Your task to perform on an android device: see tabs open on other devices in the chrome app Image 0: 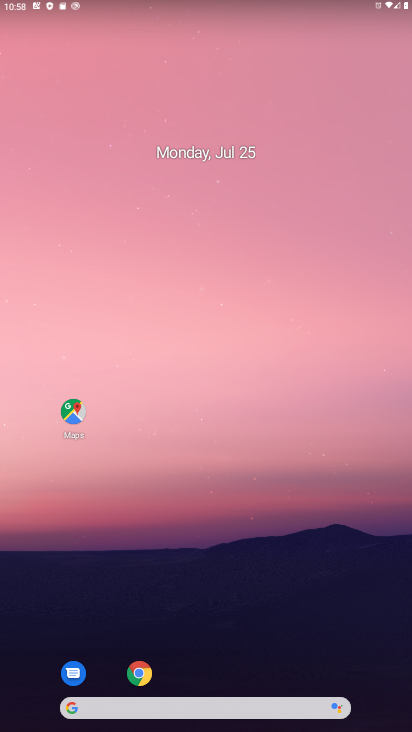
Step 0: click (139, 667)
Your task to perform on an android device: see tabs open on other devices in the chrome app Image 1: 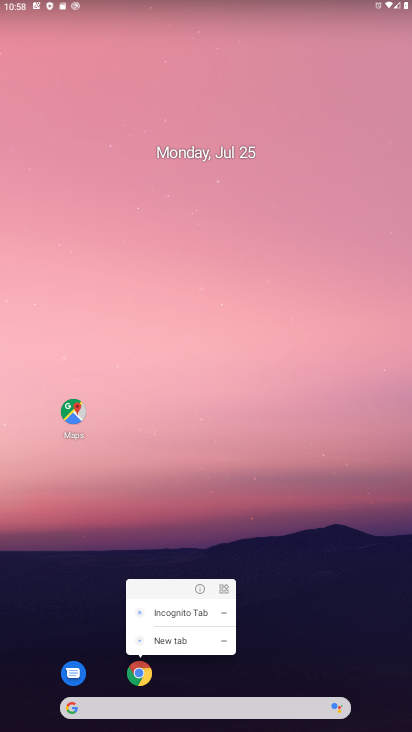
Step 1: click (278, 648)
Your task to perform on an android device: see tabs open on other devices in the chrome app Image 2: 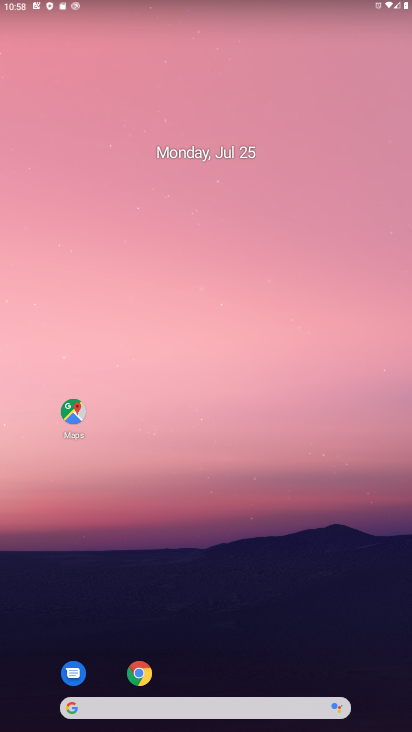
Step 2: click (137, 668)
Your task to perform on an android device: see tabs open on other devices in the chrome app Image 3: 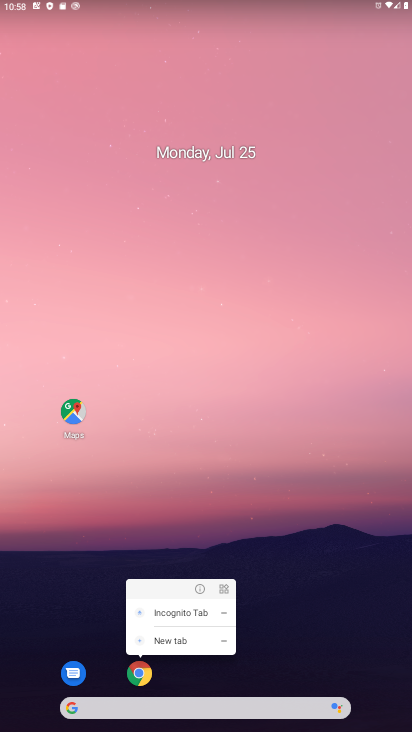
Step 3: click (135, 666)
Your task to perform on an android device: see tabs open on other devices in the chrome app Image 4: 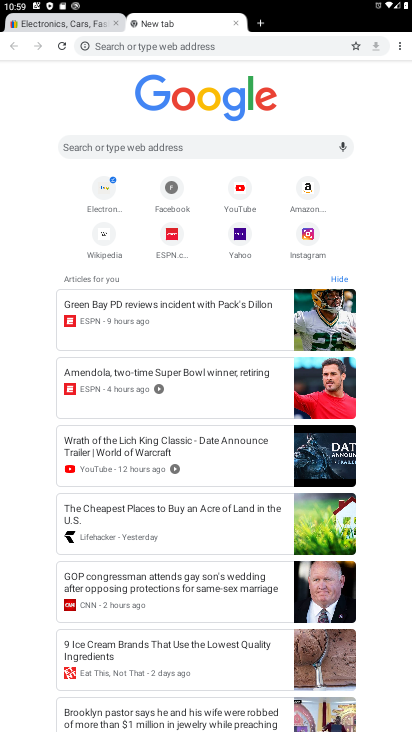
Step 4: click (396, 43)
Your task to perform on an android device: see tabs open on other devices in the chrome app Image 5: 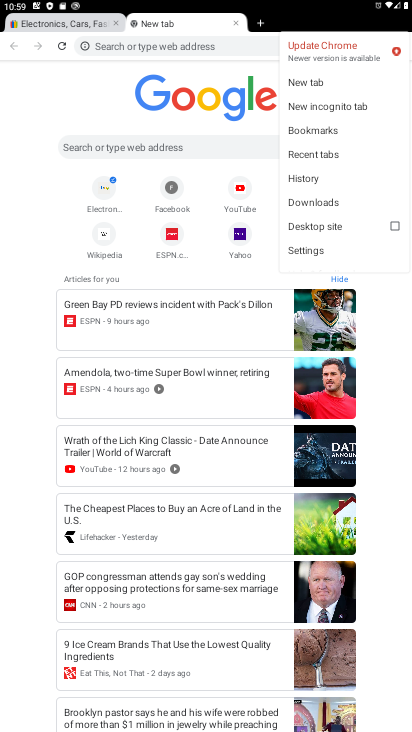
Step 5: click (339, 148)
Your task to perform on an android device: see tabs open on other devices in the chrome app Image 6: 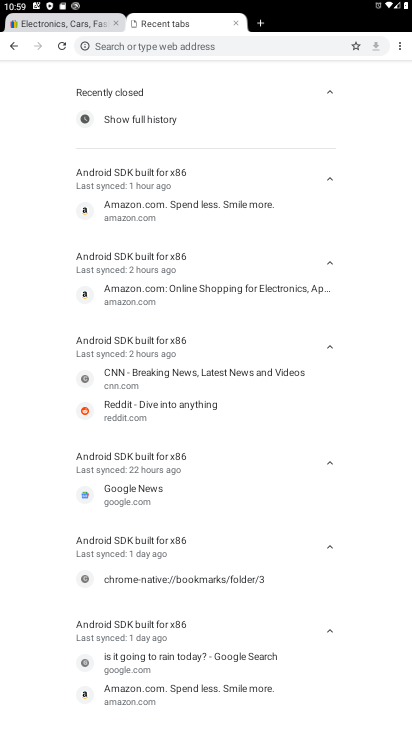
Step 6: task complete